Your task to perform on an android device: What's on my calendar today? Image 0: 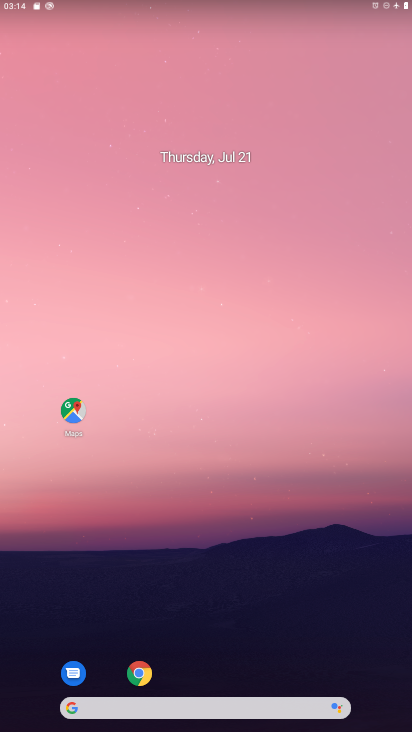
Step 0: drag from (293, 658) to (276, 242)
Your task to perform on an android device: What's on my calendar today? Image 1: 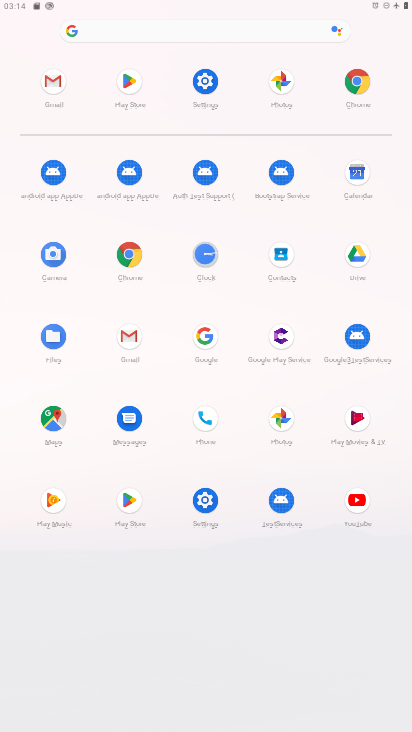
Step 1: click (359, 167)
Your task to perform on an android device: What's on my calendar today? Image 2: 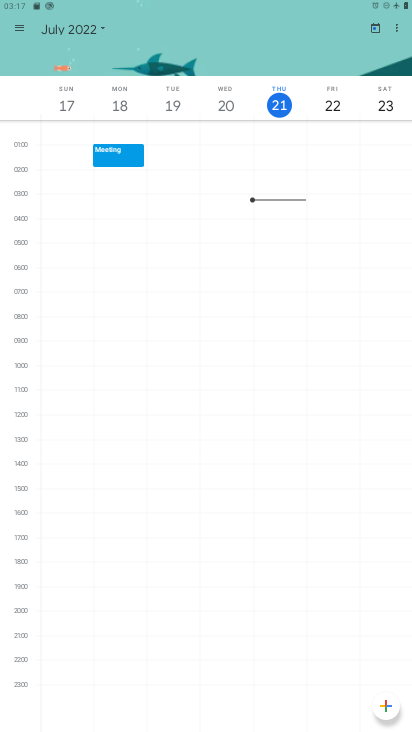
Step 2: task complete